Your task to perform on an android device: check battery use Image 0: 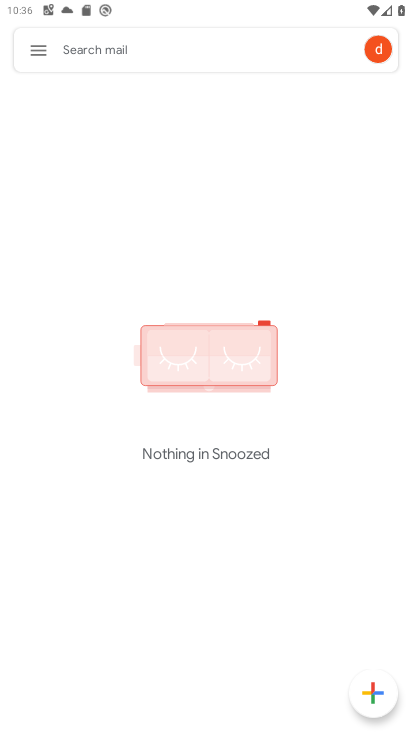
Step 0: press home button
Your task to perform on an android device: check battery use Image 1: 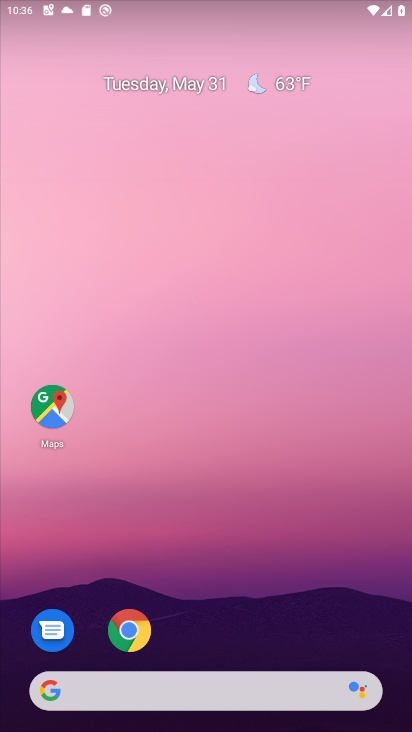
Step 1: drag from (261, 628) to (279, 161)
Your task to perform on an android device: check battery use Image 2: 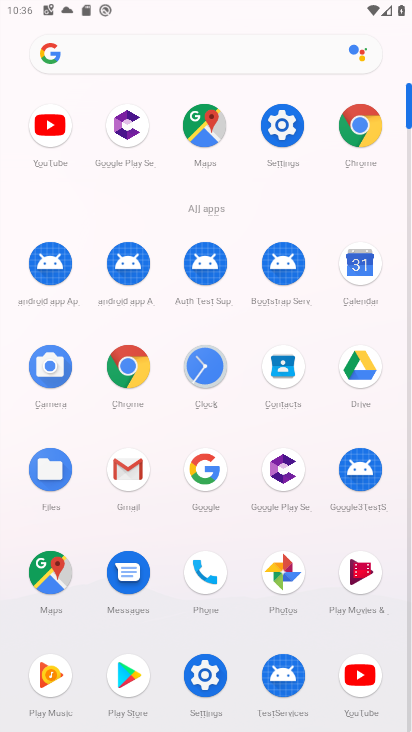
Step 2: click (283, 121)
Your task to perform on an android device: check battery use Image 3: 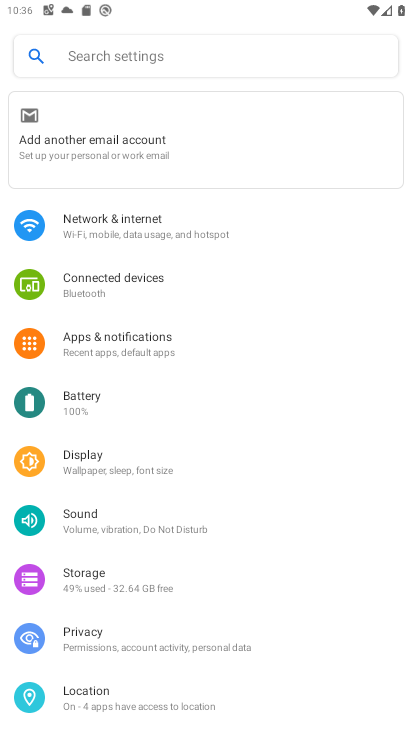
Step 3: drag from (181, 589) to (184, 235)
Your task to perform on an android device: check battery use Image 4: 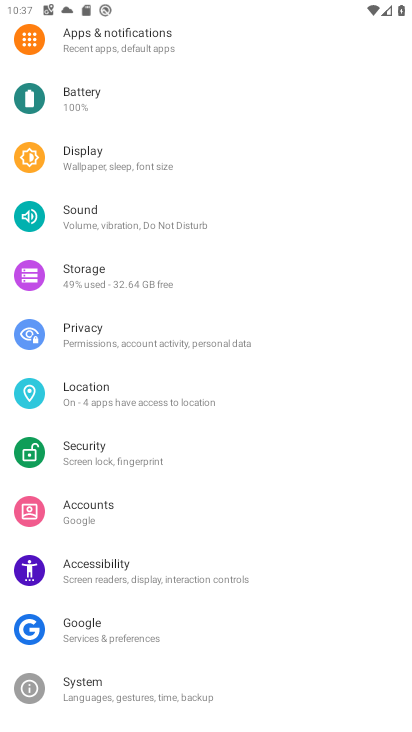
Step 4: drag from (126, 615) to (149, 352)
Your task to perform on an android device: check battery use Image 5: 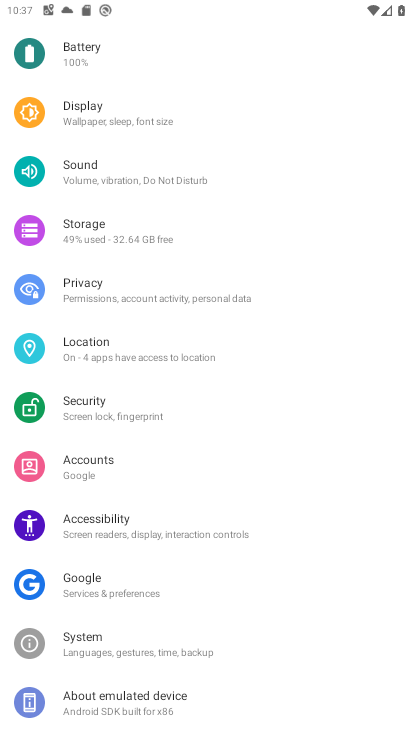
Step 5: drag from (169, 197) to (150, 666)
Your task to perform on an android device: check battery use Image 6: 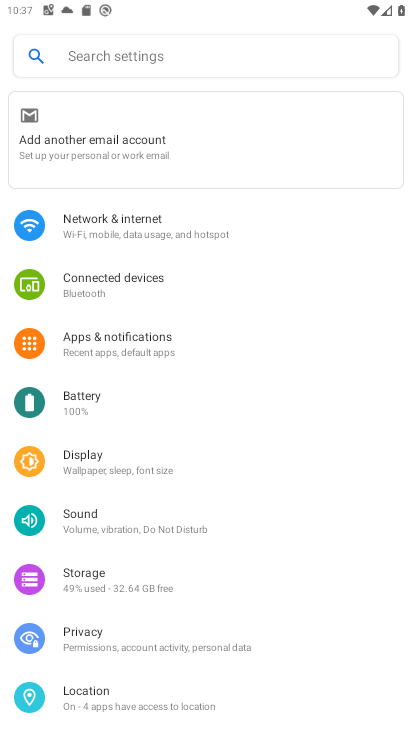
Step 6: click (79, 393)
Your task to perform on an android device: check battery use Image 7: 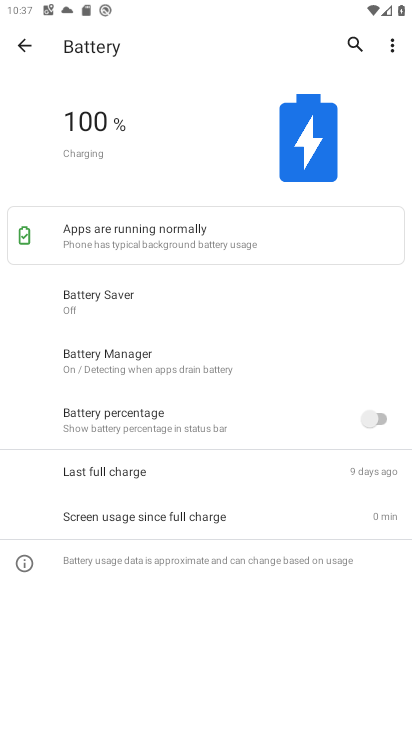
Step 7: click (388, 36)
Your task to perform on an android device: check battery use Image 8: 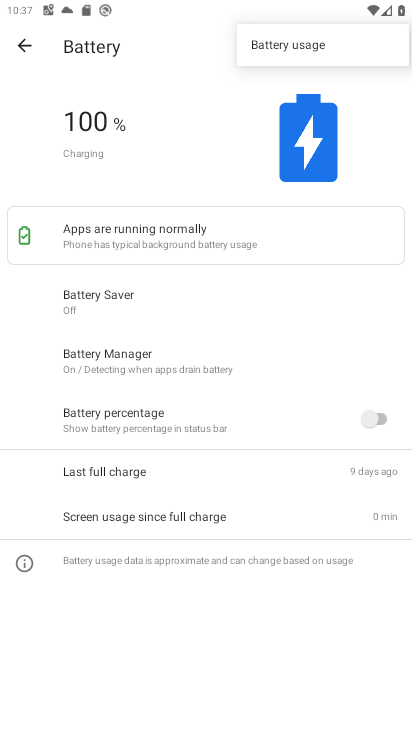
Step 8: click (322, 46)
Your task to perform on an android device: check battery use Image 9: 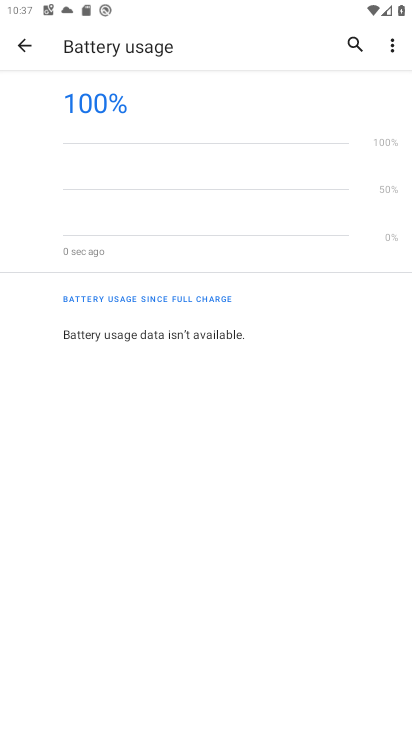
Step 9: task complete